Your task to perform on an android device: all mails in gmail Image 0: 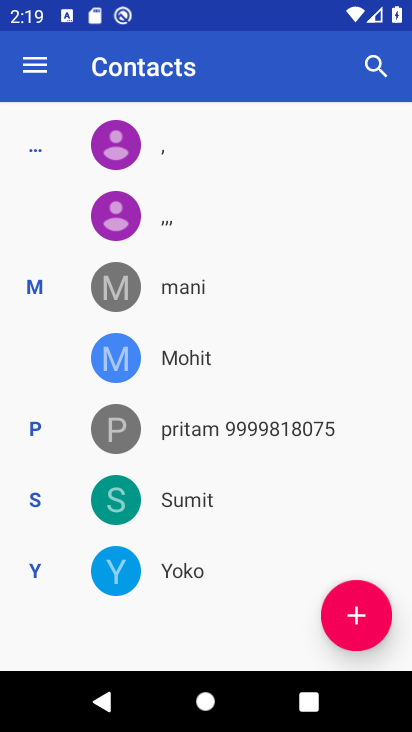
Step 0: press home button
Your task to perform on an android device: all mails in gmail Image 1: 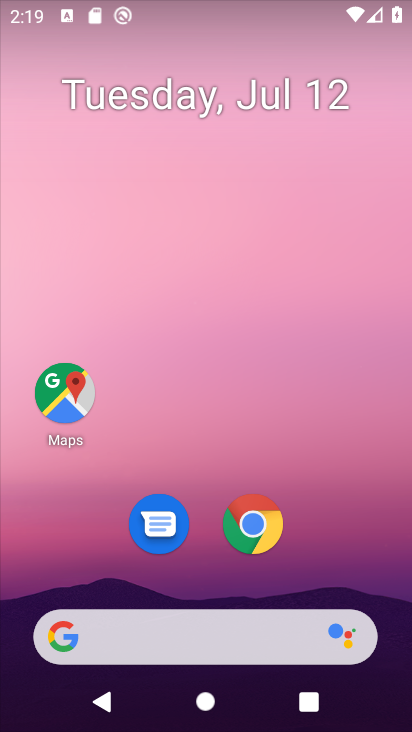
Step 1: drag from (320, 557) to (311, 37)
Your task to perform on an android device: all mails in gmail Image 2: 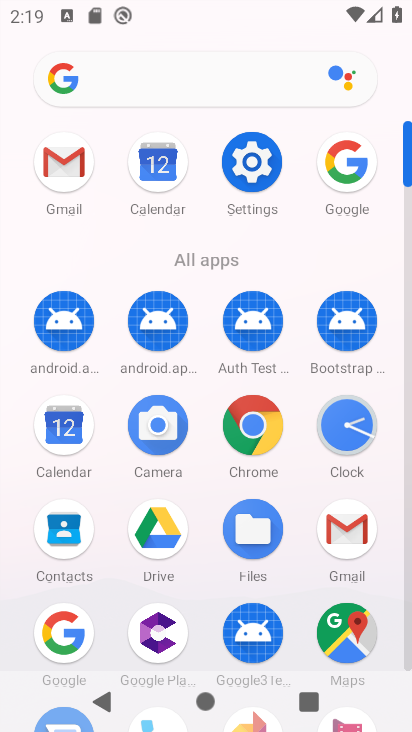
Step 2: click (63, 156)
Your task to perform on an android device: all mails in gmail Image 3: 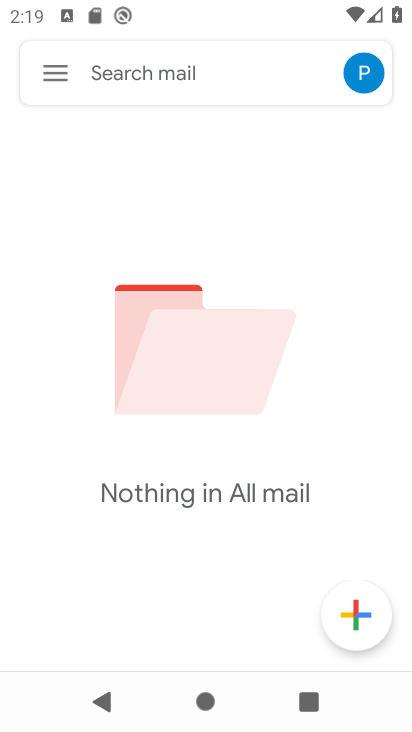
Step 3: task complete